Your task to perform on an android device: turn smart compose on in the gmail app Image 0: 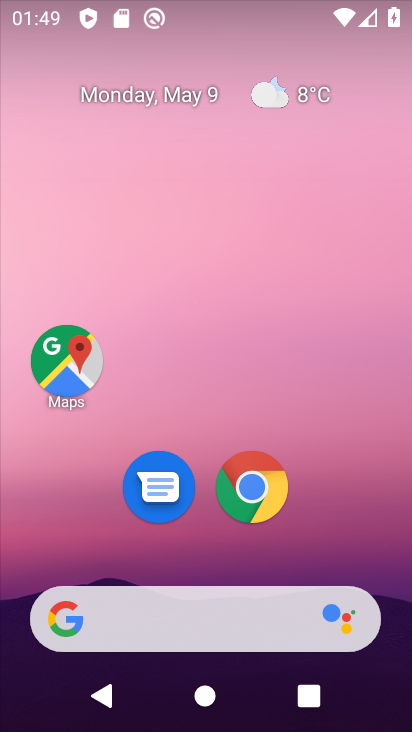
Step 0: drag from (376, 551) to (328, 12)
Your task to perform on an android device: turn smart compose on in the gmail app Image 1: 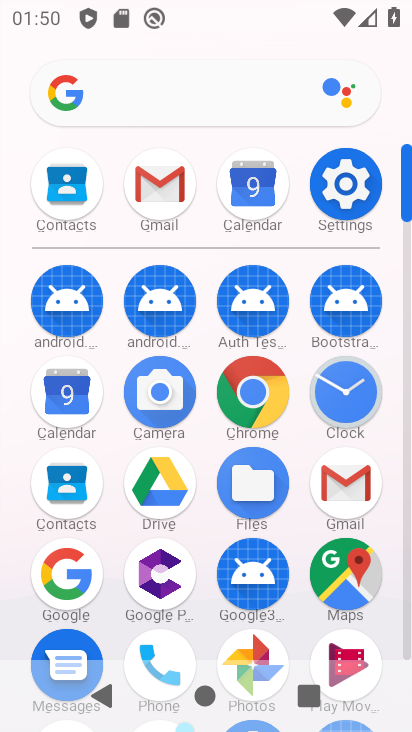
Step 1: click (162, 192)
Your task to perform on an android device: turn smart compose on in the gmail app Image 2: 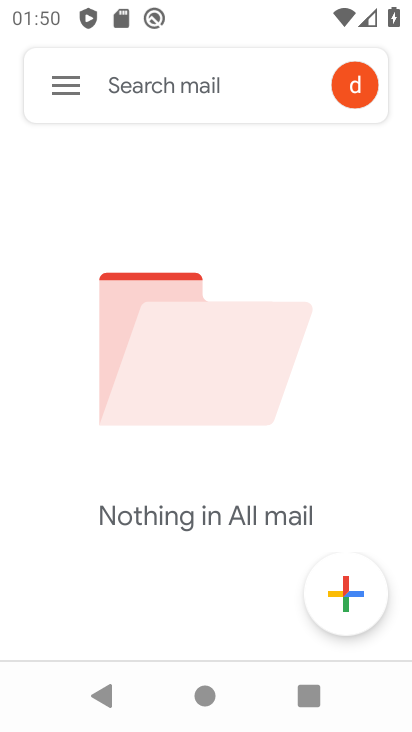
Step 2: click (61, 77)
Your task to perform on an android device: turn smart compose on in the gmail app Image 3: 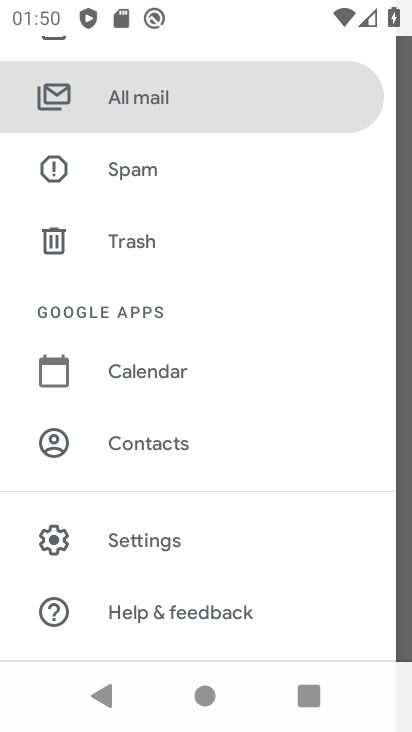
Step 3: click (177, 546)
Your task to perform on an android device: turn smart compose on in the gmail app Image 4: 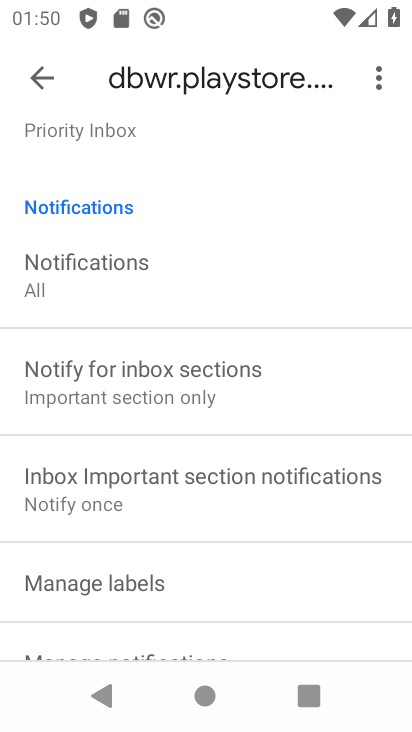
Step 4: task complete